Your task to perform on an android device: read, delete, or share a saved page in the chrome app Image 0: 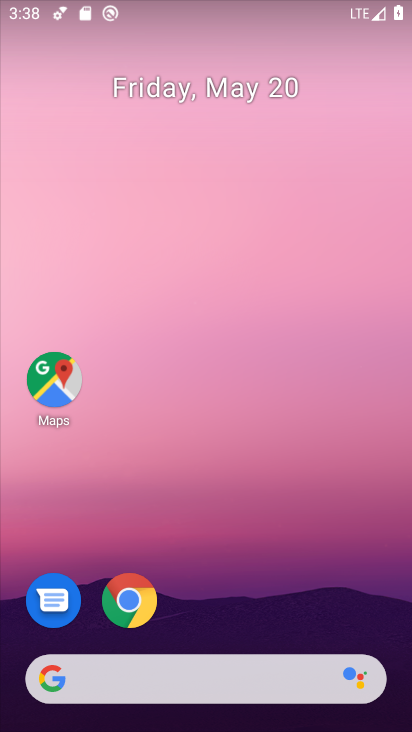
Step 0: drag from (347, 614) to (357, 274)
Your task to perform on an android device: read, delete, or share a saved page in the chrome app Image 1: 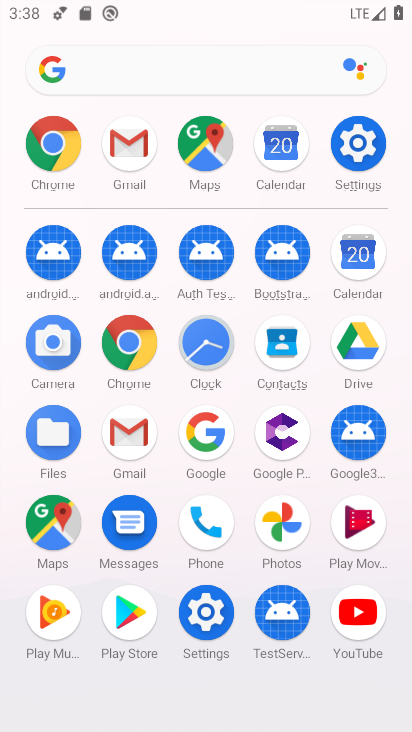
Step 1: click (150, 350)
Your task to perform on an android device: read, delete, or share a saved page in the chrome app Image 2: 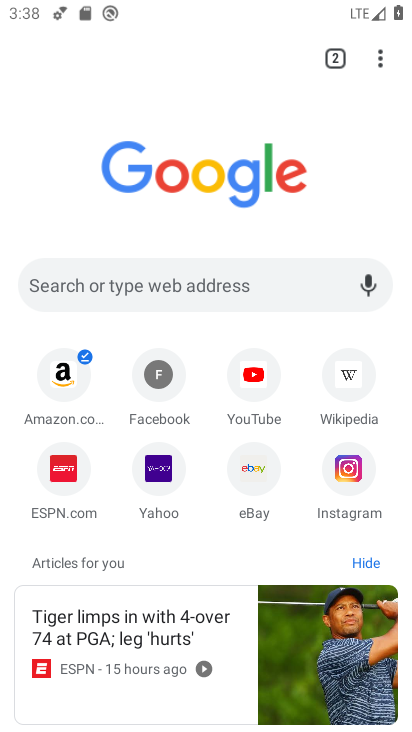
Step 2: click (383, 67)
Your task to perform on an android device: read, delete, or share a saved page in the chrome app Image 3: 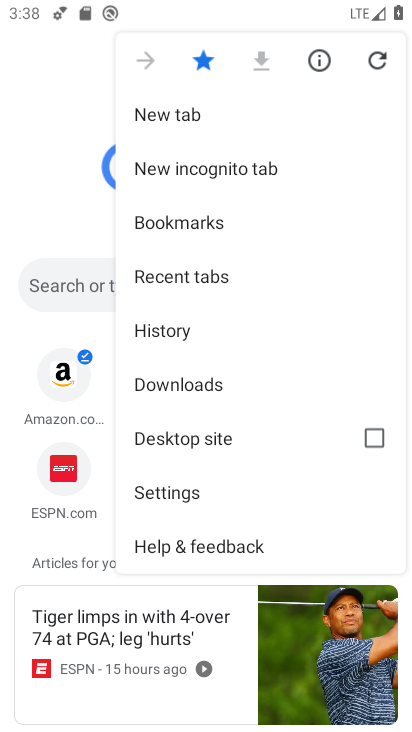
Step 3: click (222, 394)
Your task to perform on an android device: read, delete, or share a saved page in the chrome app Image 4: 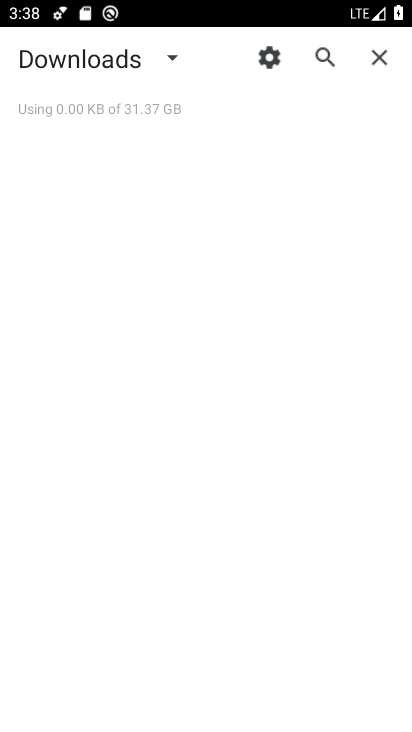
Step 4: click (182, 66)
Your task to perform on an android device: read, delete, or share a saved page in the chrome app Image 5: 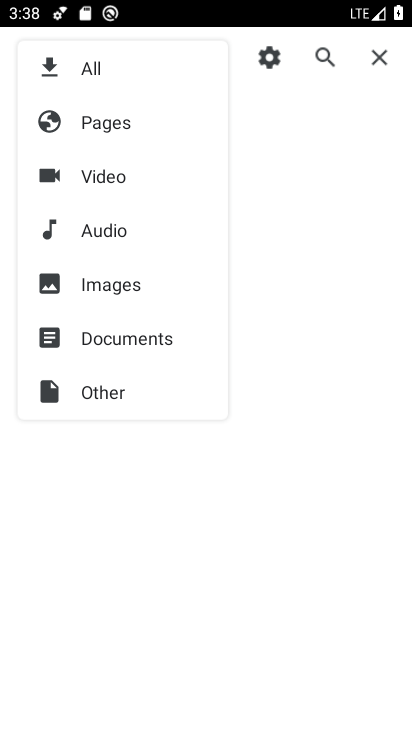
Step 5: click (109, 128)
Your task to perform on an android device: read, delete, or share a saved page in the chrome app Image 6: 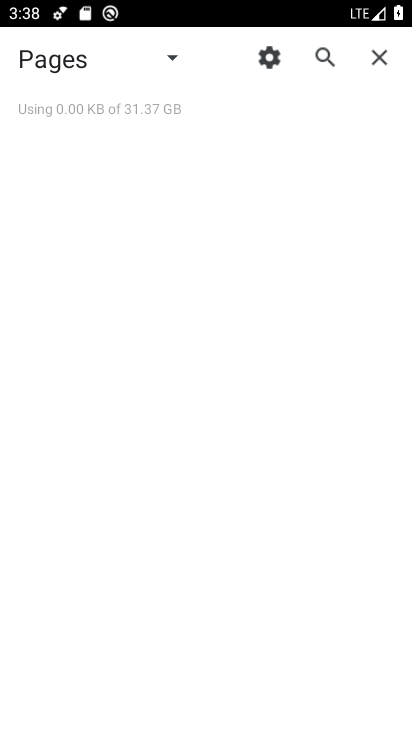
Step 6: task complete